Your task to perform on an android device: set default search engine in the chrome app Image 0: 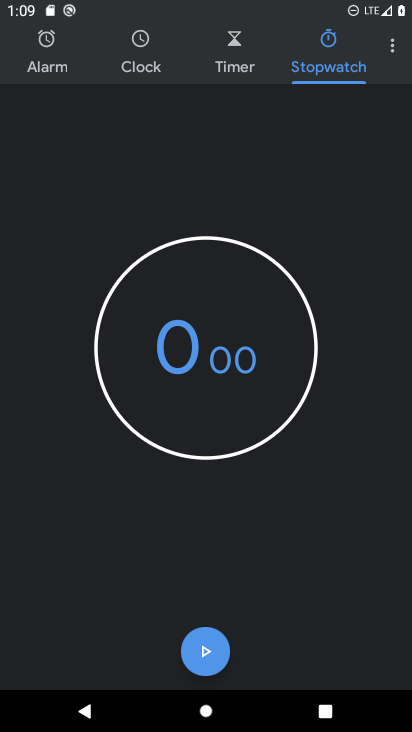
Step 0: press home button
Your task to perform on an android device: set default search engine in the chrome app Image 1: 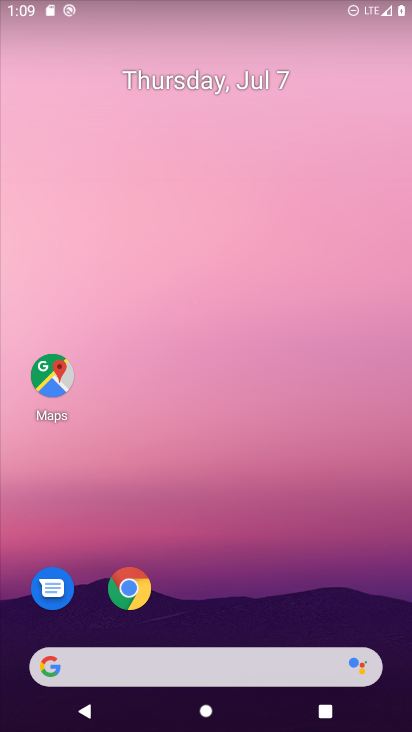
Step 1: drag from (260, 662) to (275, 140)
Your task to perform on an android device: set default search engine in the chrome app Image 2: 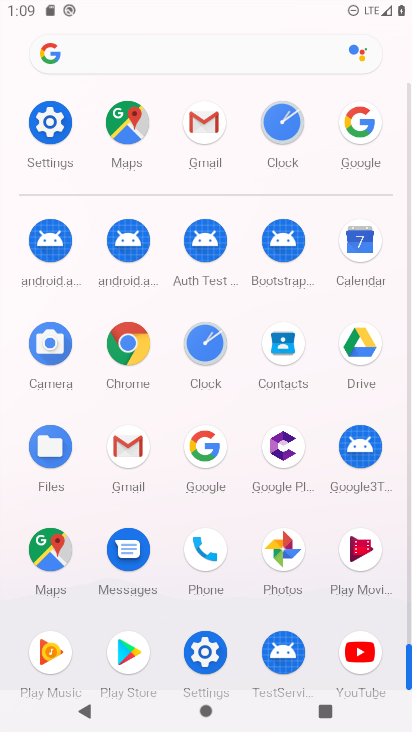
Step 2: click (119, 335)
Your task to perform on an android device: set default search engine in the chrome app Image 3: 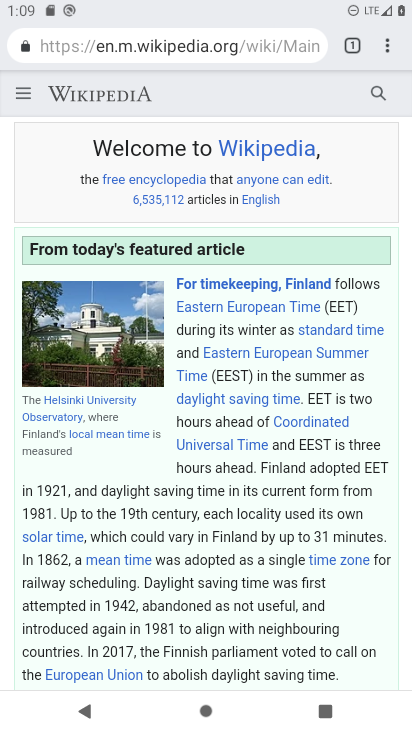
Step 3: drag from (387, 45) to (240, 557)
Your task to perform on an android device: set default search engine in the chrome app Image 4: 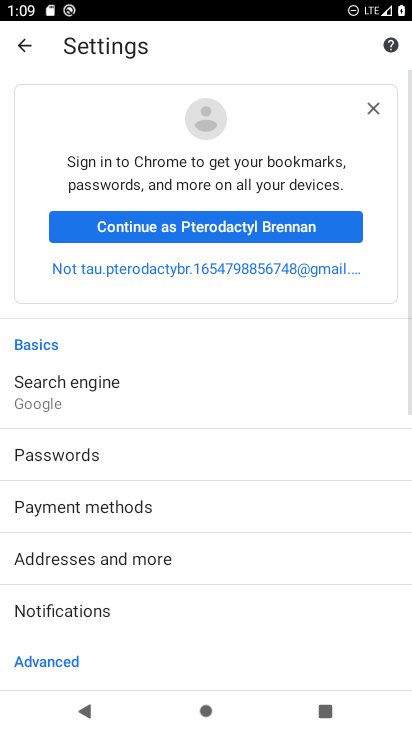
Step 4: click (166, 413)
Your task to perform on an android device: set default search engine in the chrome app Image 5: 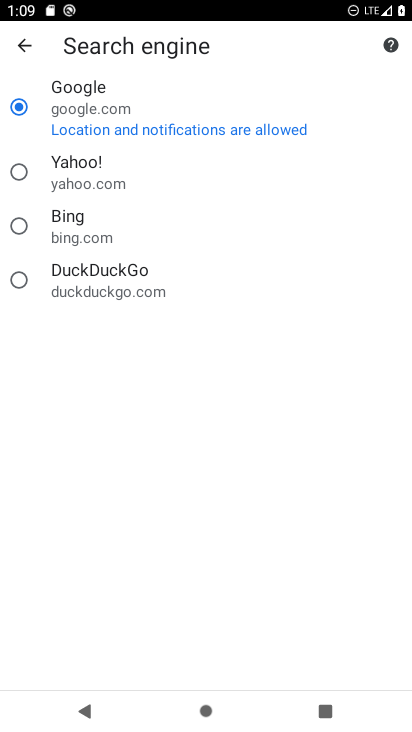
Step 5: task complete